Your task to perform on an android device: Open Chrome and go to the settings page Image 0: 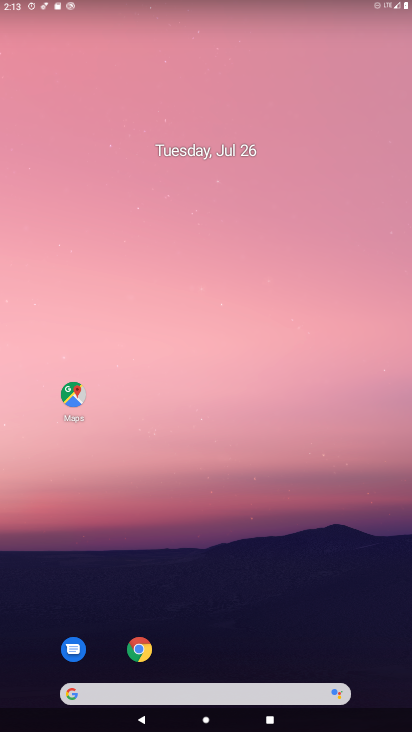
Step 0: drag from (351, 646) to (129, 83)
Your task to perform on an android device: Open Chrome and go to the settings page Image 1: 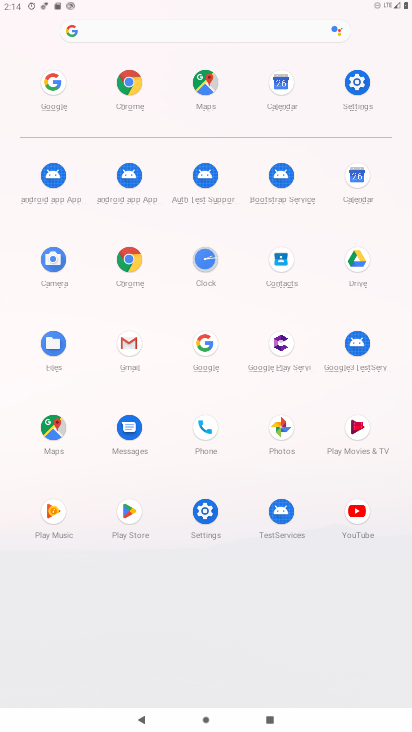
Step 1: click (126, 259)
Your task to perform on an android device: Open Chrome and go to the settings page Image 2: 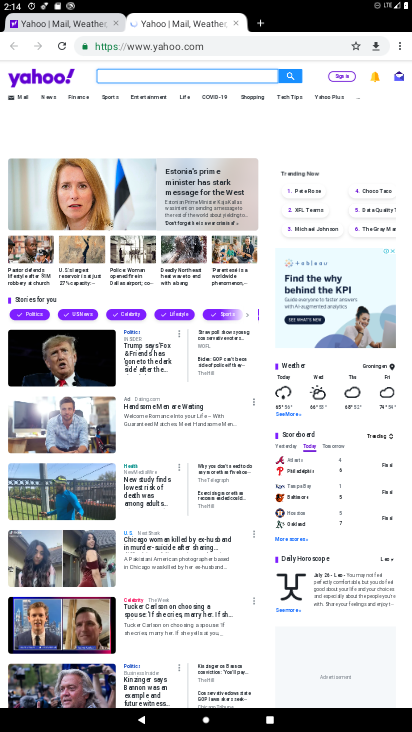
Step 2: press back button
Your task to perform on an android device: Open Chrome and go to the settings page Image 3: 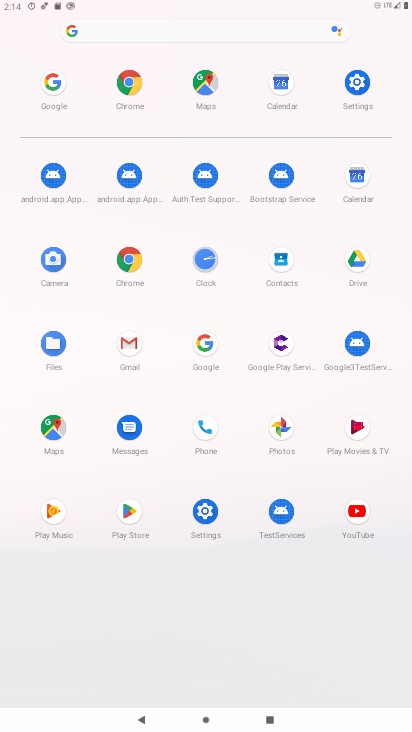
Step 3: click (122, 259)
Your task to perform on an android device: Open Chrome and go to the settings page Image 4: 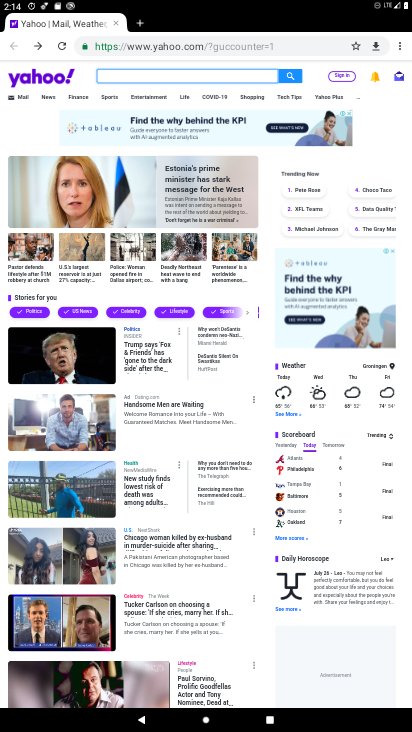
Step 4: task complete